Your task to perform on an android device: turn off smart reply in the gmail app Image 0: 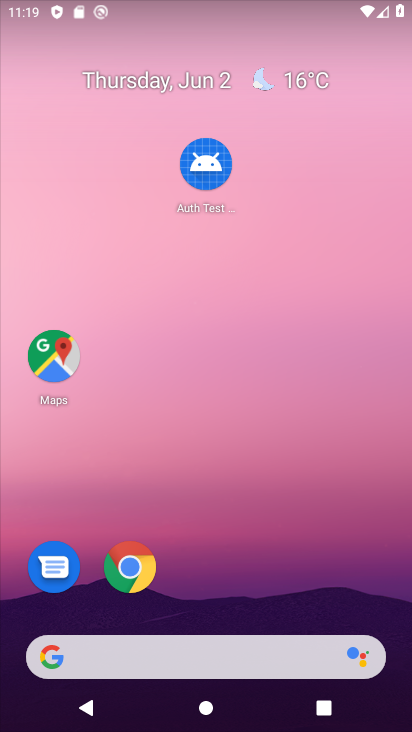
Step 0: drag from (140, 611) to (163, 55)
Your task to perform on an android device: turn off smart reply in the gmail app Image 1: 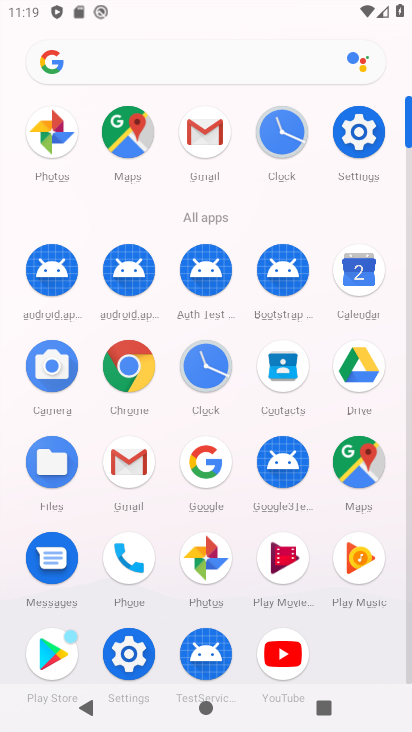
Step 1: click (201, 136)
Your task to perform on an android device: turn off smart reply in the gmail app Image 2: 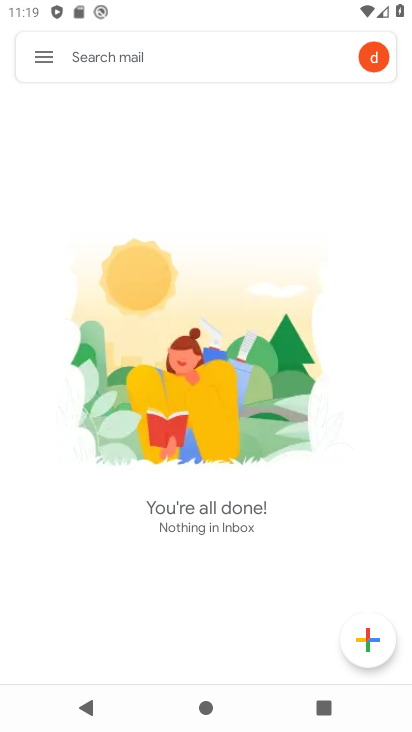
Step 2: click (201, 136)
Your task to perform on an android device: turn off smart reply in the gmail app Image 3: 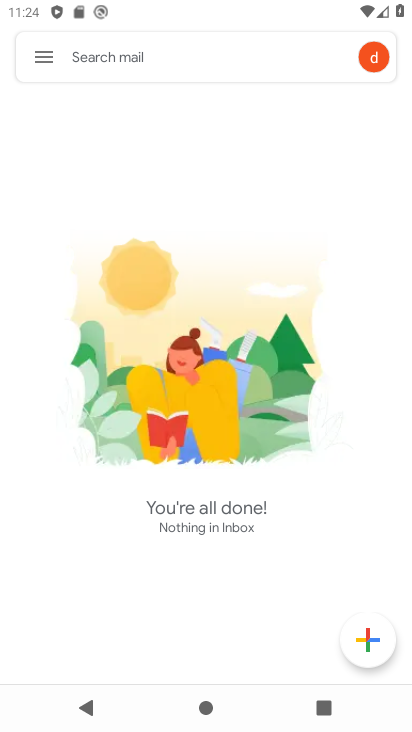
Step 3: click (52, 61)
Your task to perform on an android device: turn off smart reply in the gmail app Image 4: 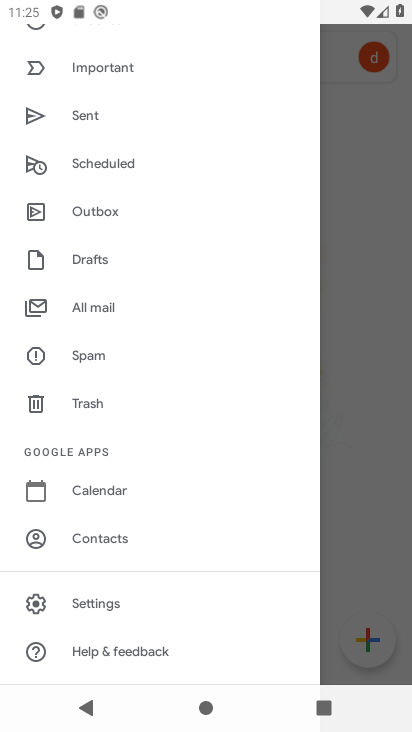
Step 4: click (98, 591)
Your task to perform on an android device: turn off smart reply in the gmail app Image 5: 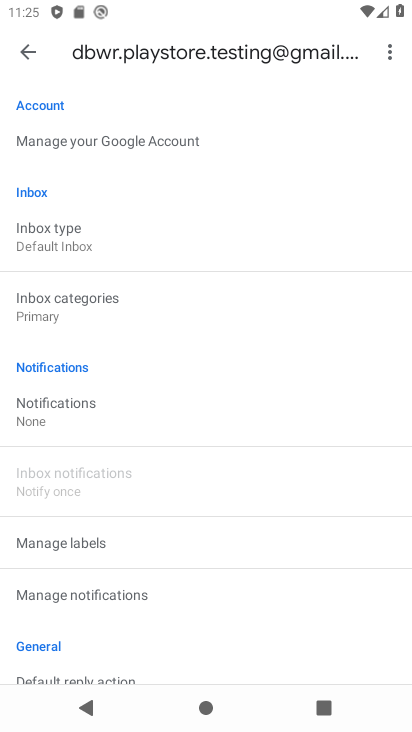
Step 5: click (56, 643)
Your task to perform on an android device: turn off smart reply in the gmail app Image 6: 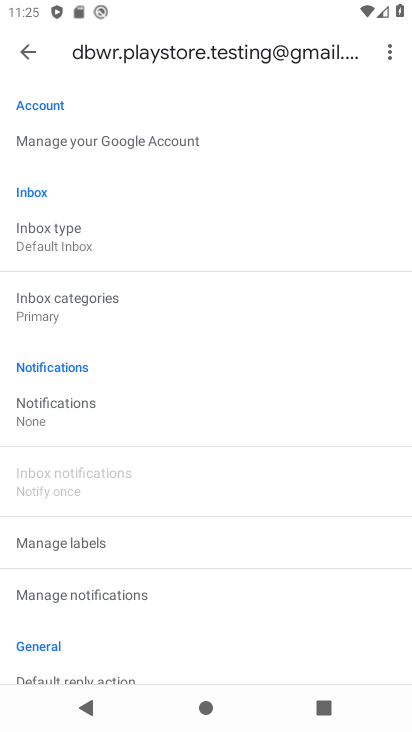
Step 6: drag from (56, 643) to (137, 247)
Your task to perform on an android device: turn off smart reply in the gmail app Image 7: 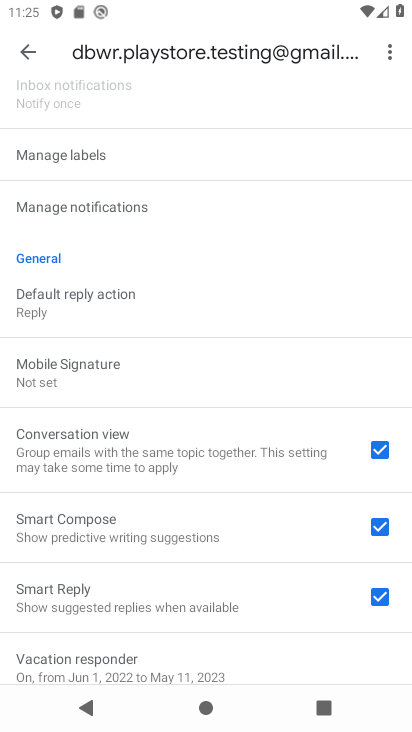
Step 7: click (381, 595)
Your task to perform on an android device: turn off smart reply in the gmail app Image 8: 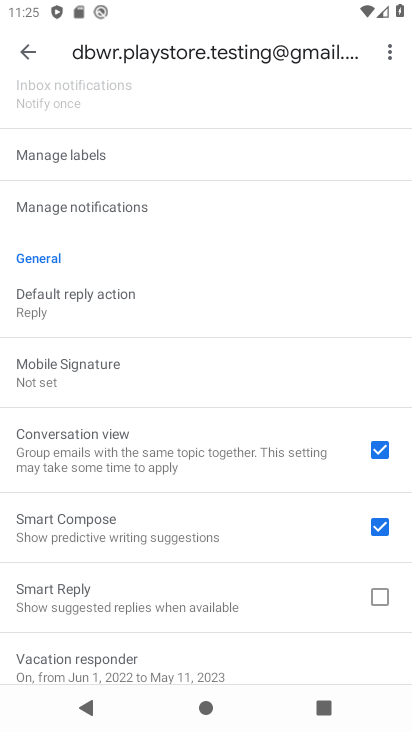
Step 8: task complete